Your task to perform on an android device: change keyboard looks Image 0: 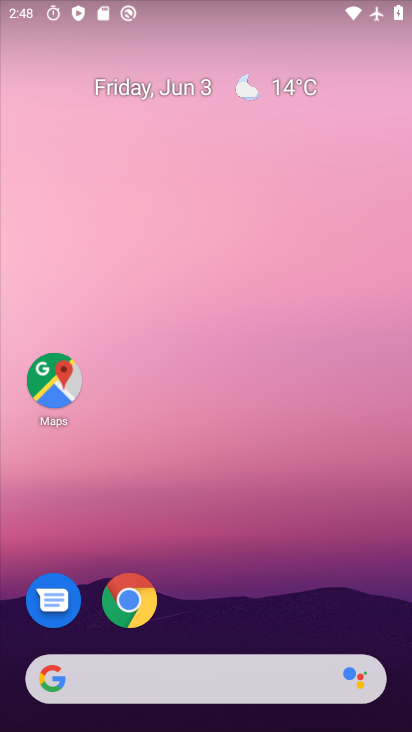
Step 0: drag from (269, 463) to (228, 48)
Your task to perform on an android device: change keyboard looks Image 1: 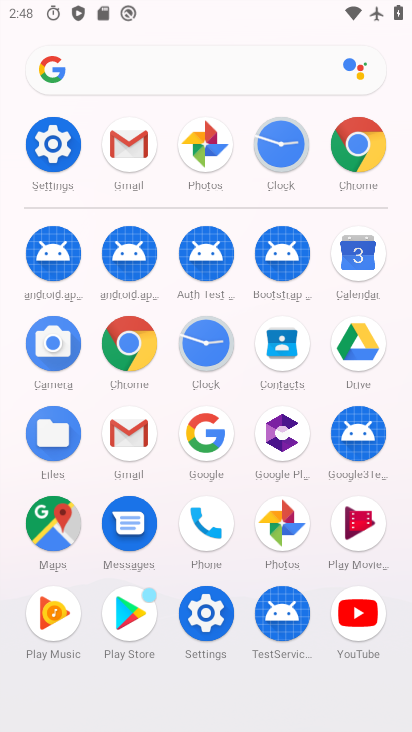
Step 1: click (203, 612)
Your task to perform on an android device: change keyboard looks Image 2: 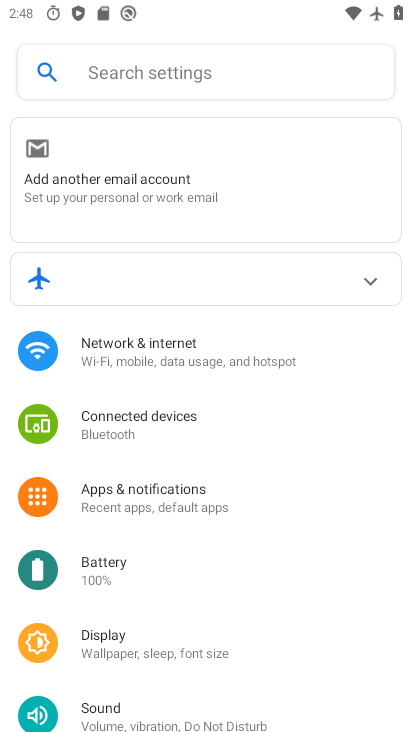
Step 2: drag from (311, 659) to (328, 150)
Your task to perform on an android device: change keyboard looks Image 3: 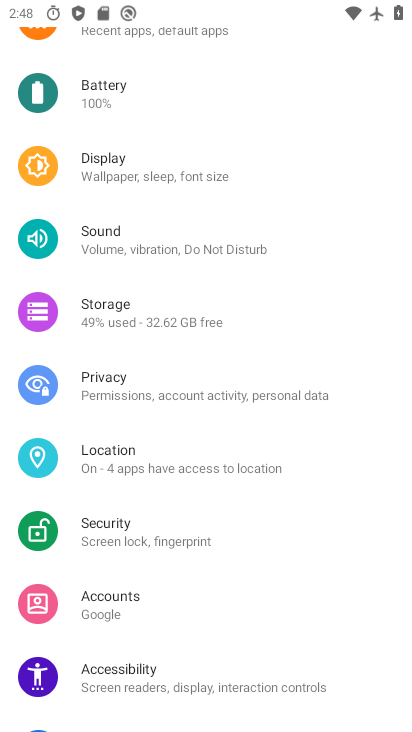
Step 3: drag from (287, 602) to (306, 96)
Your task to perform on an android device: change keyboard looks Image 4: 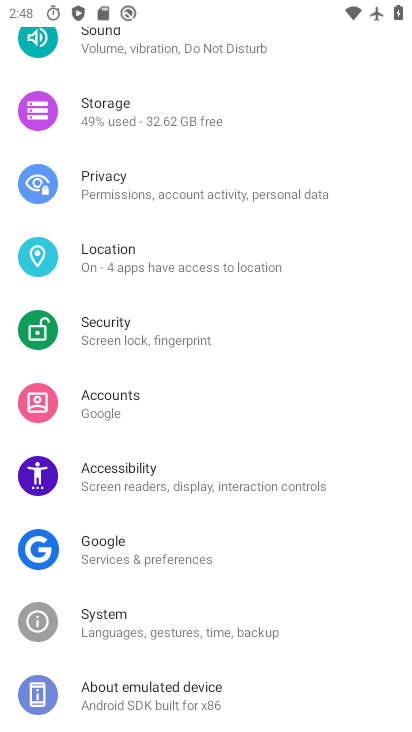
Step 4: click (106, 623)
Your task to perform on an android device: change keyboard looks Image 5: 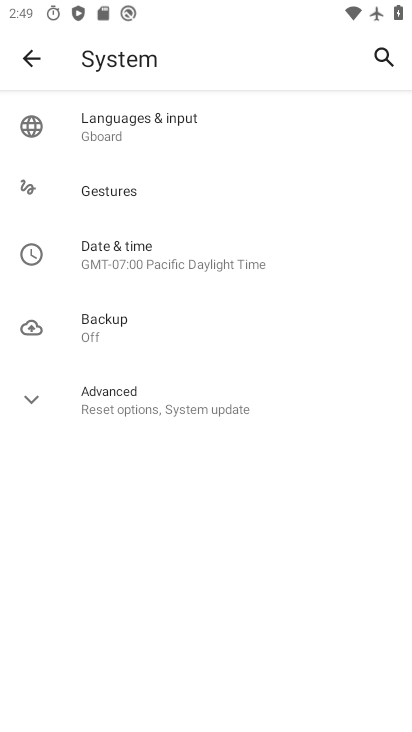
Step 5: click (130, 122)
Your task to perform on an android device: change keyboard looks Image 6: 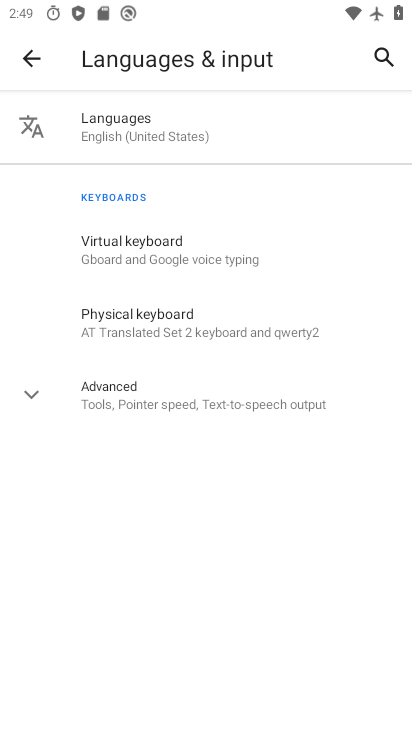
Step 6: click (155, 249)
Your task to perform on an android device: change keyboard looks Image 7: 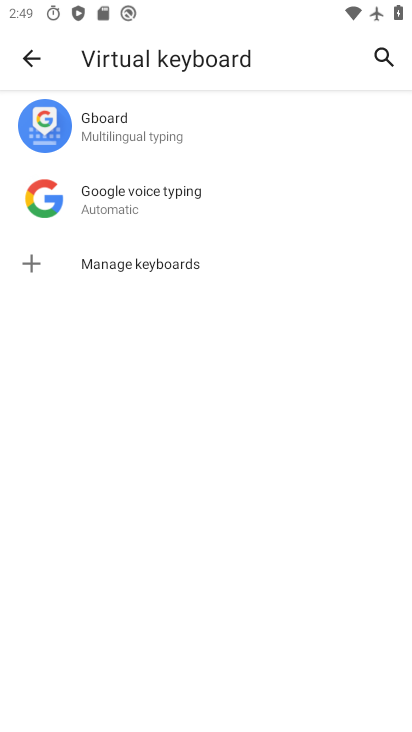
Step 7: click (131, 127)
Your task to perform on an android device: change keyboard looks Image 8: 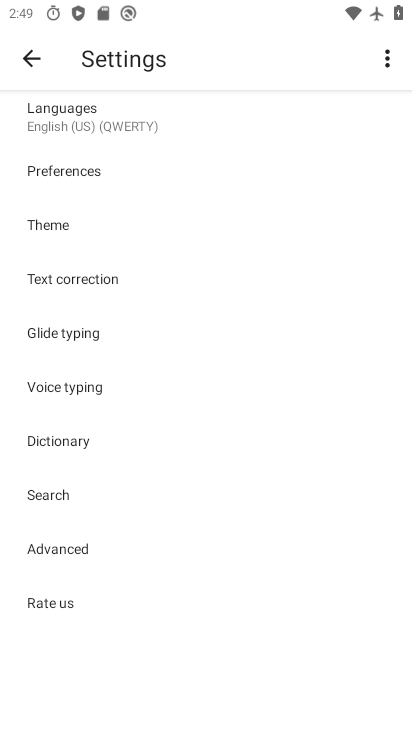
Step 8: click (62, 227)
Your task to perform on an android device: change keyboard looks Image 9: 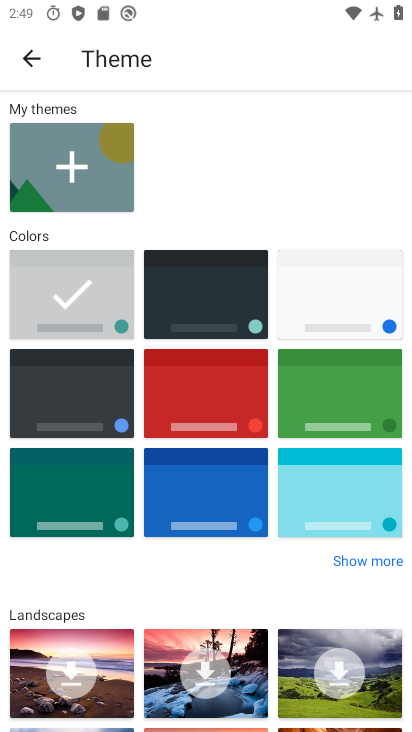
Step 9: click (221, 276)
Your task to perform on an android device: change keyboard looks Image 10: 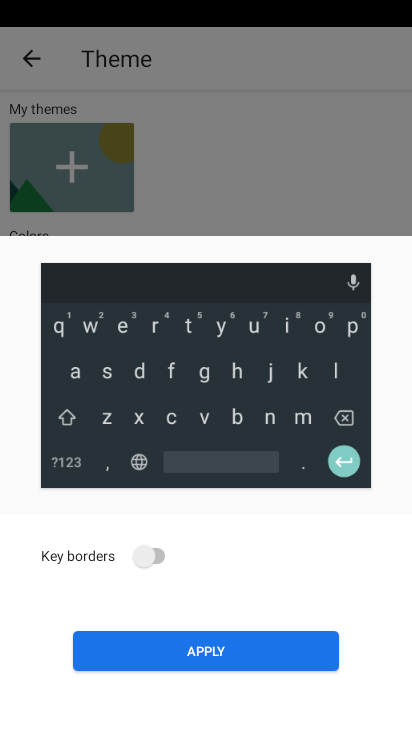
Step 10: click (218, 644)
Your task to perform on an android device: change keyboard looks Image 11: 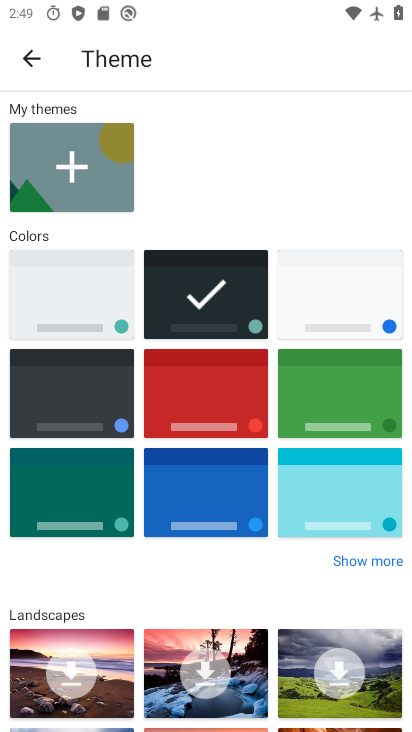
Step 11: task complete